Your task to perform on an android device: Go to Maps Image 0: 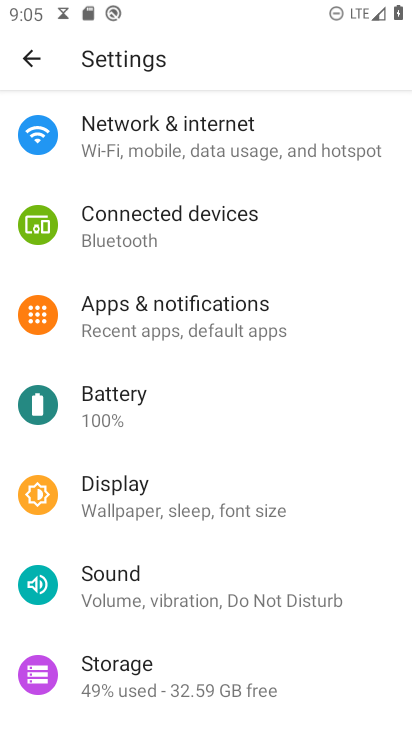
Step 0: press home button
Your task to perform on an android device: Go to Maps Image 1: 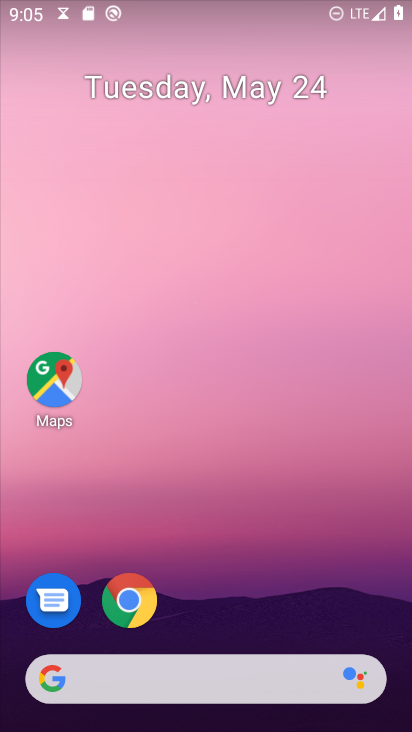
Step 1: click (57, 379)
Your task to perform on an android device: Go to Maps Image 2: 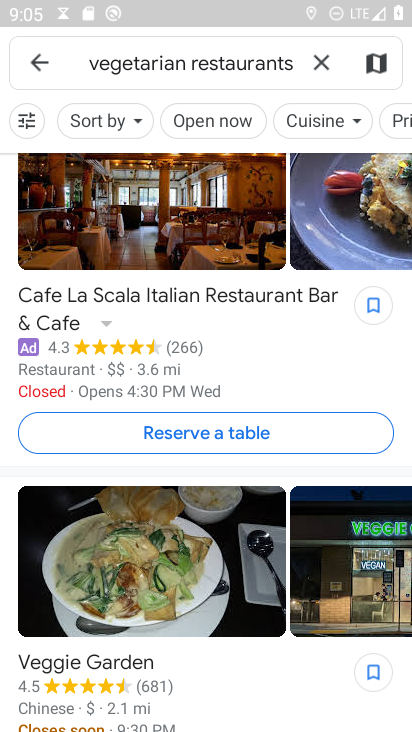
Step 2: task complete